Your task to perform on an android device: What's the weather going to be this weekend? Image 0: 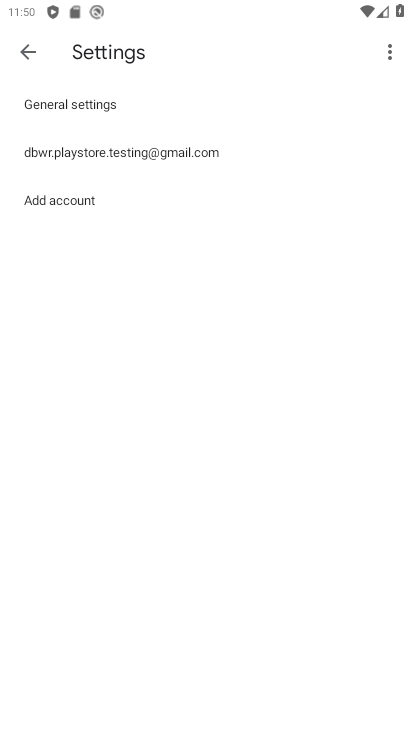
Step 0: press home button
Your task to perform on an android device: What's the weather going to be this weekend? Image 1: 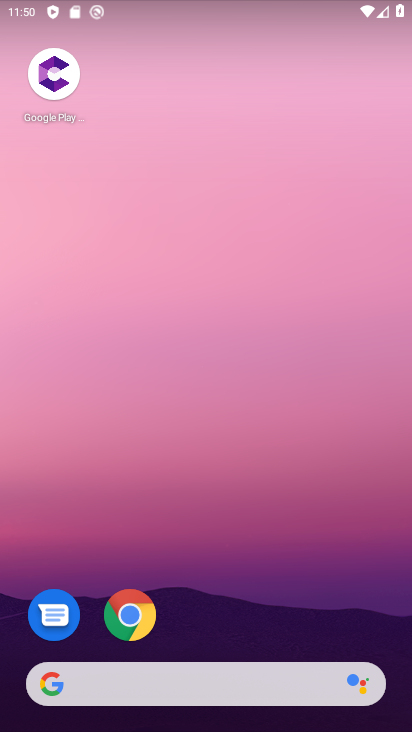
Step 1: click (46, 681)
Your task to perform on an android device: What's the weather going to be this weekend? Image 2: 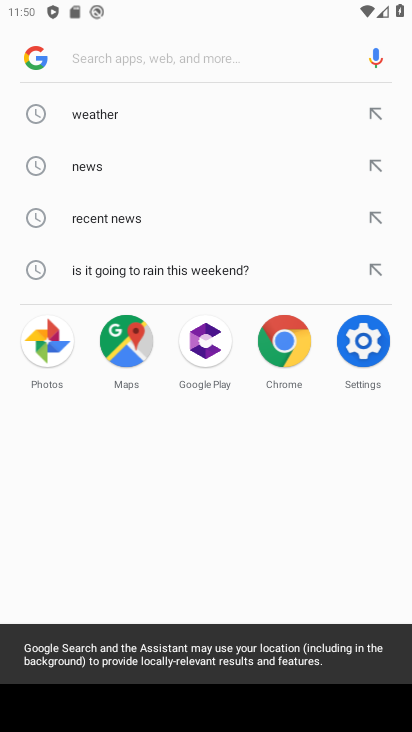
Step 2: click (39, 63)
Your task to perform on an android device: What's the weather going to be this weekend? Image 3: 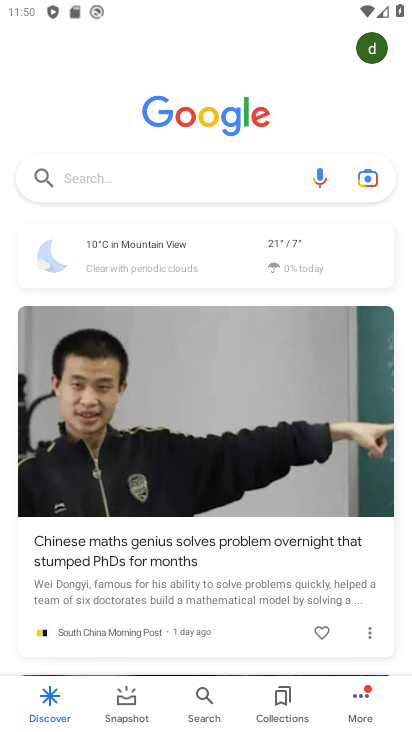
Step 3: click (99, 269)
Your task to perform on an android device: What's the weather going to be this weekend? Image 4: 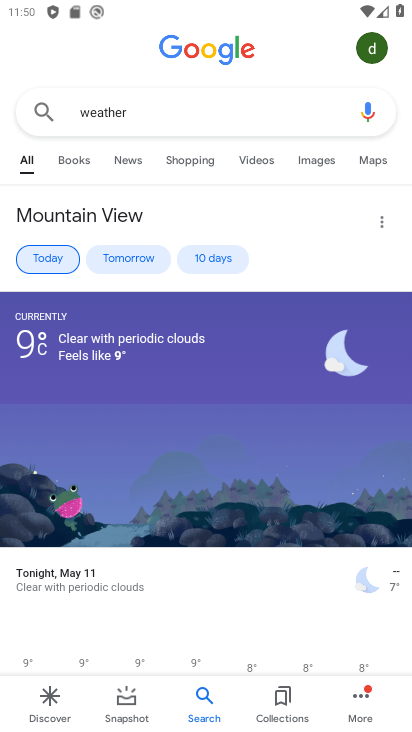
Step 4: task complete